Your task to perform on an android device: open app "YouTube Kids" Image 0: 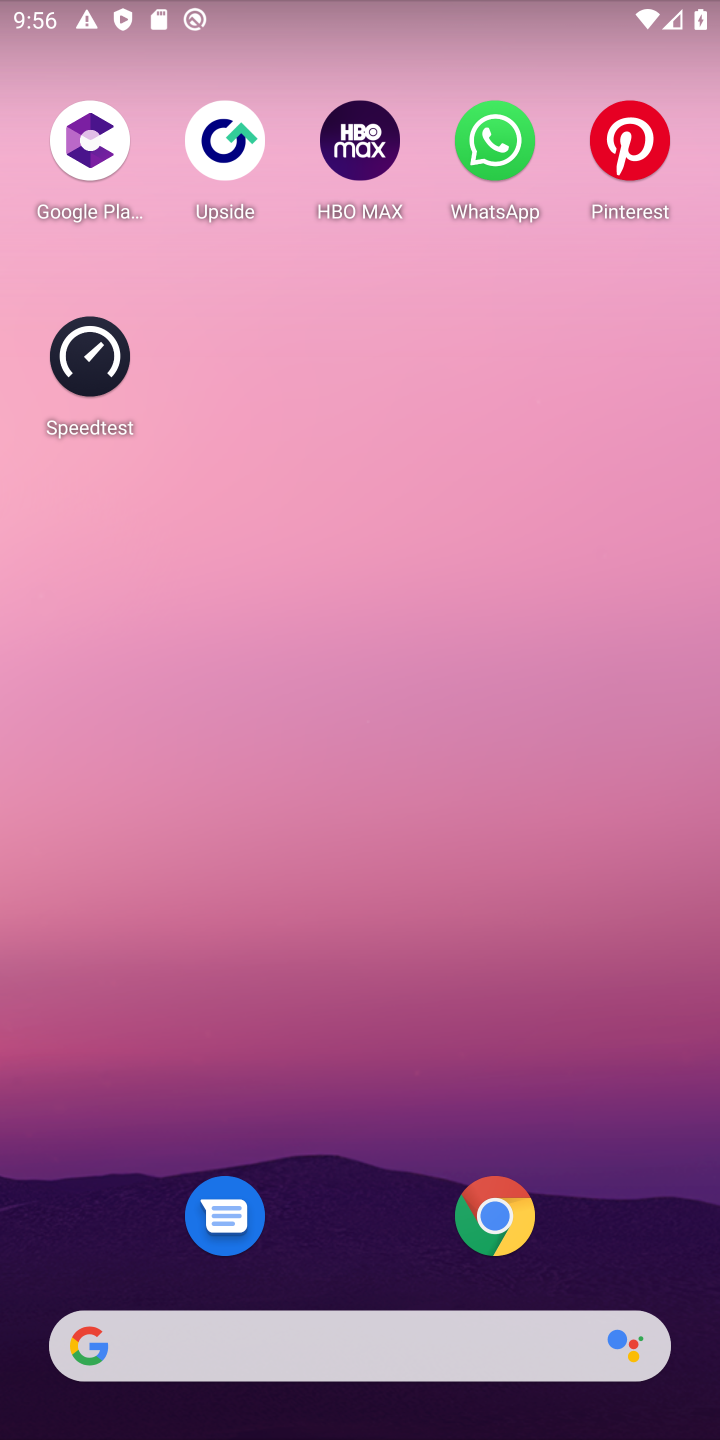
Step 0: press home button
Your task to perform on an android device: open app "YouTube Kids" Image 1: 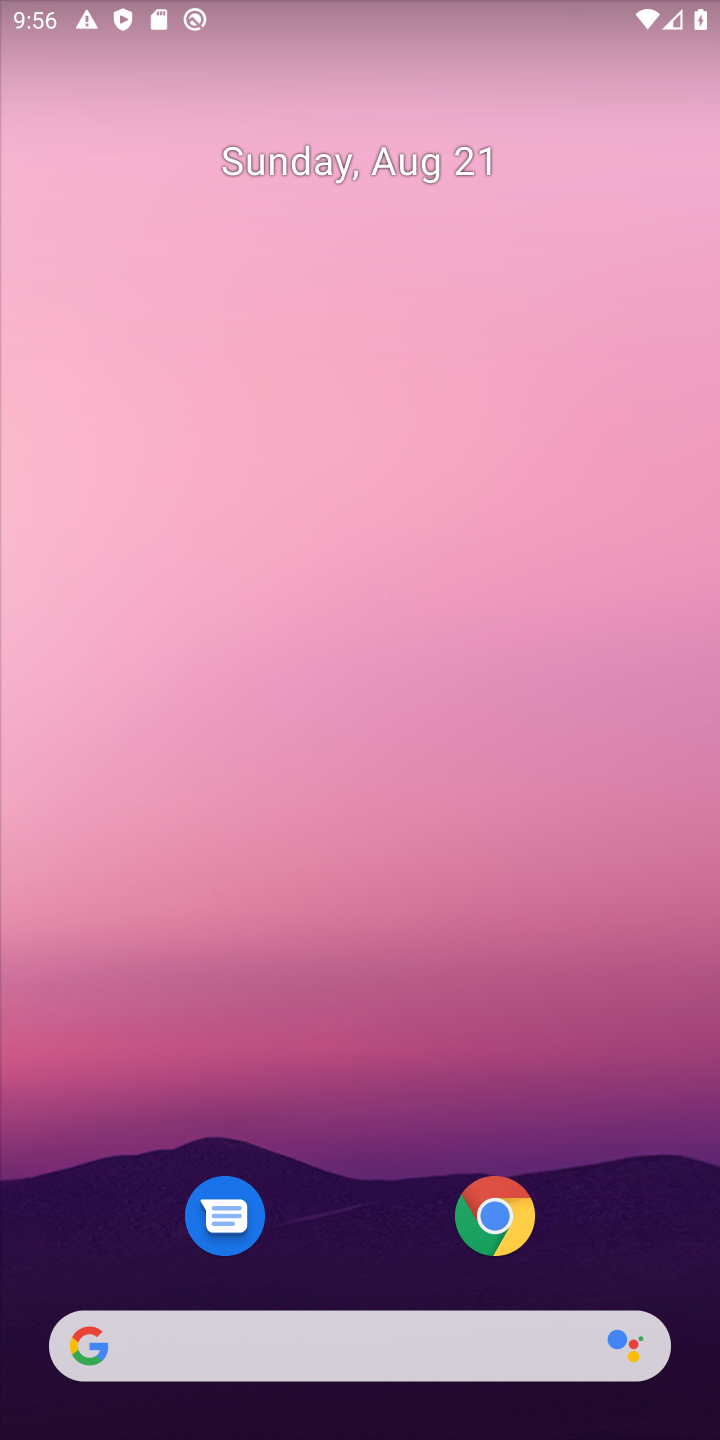
Step 1: drag from (294, 1178) to (326, 208)
Your task to perform on an android device: open app "YouTube Kids" Image 2: 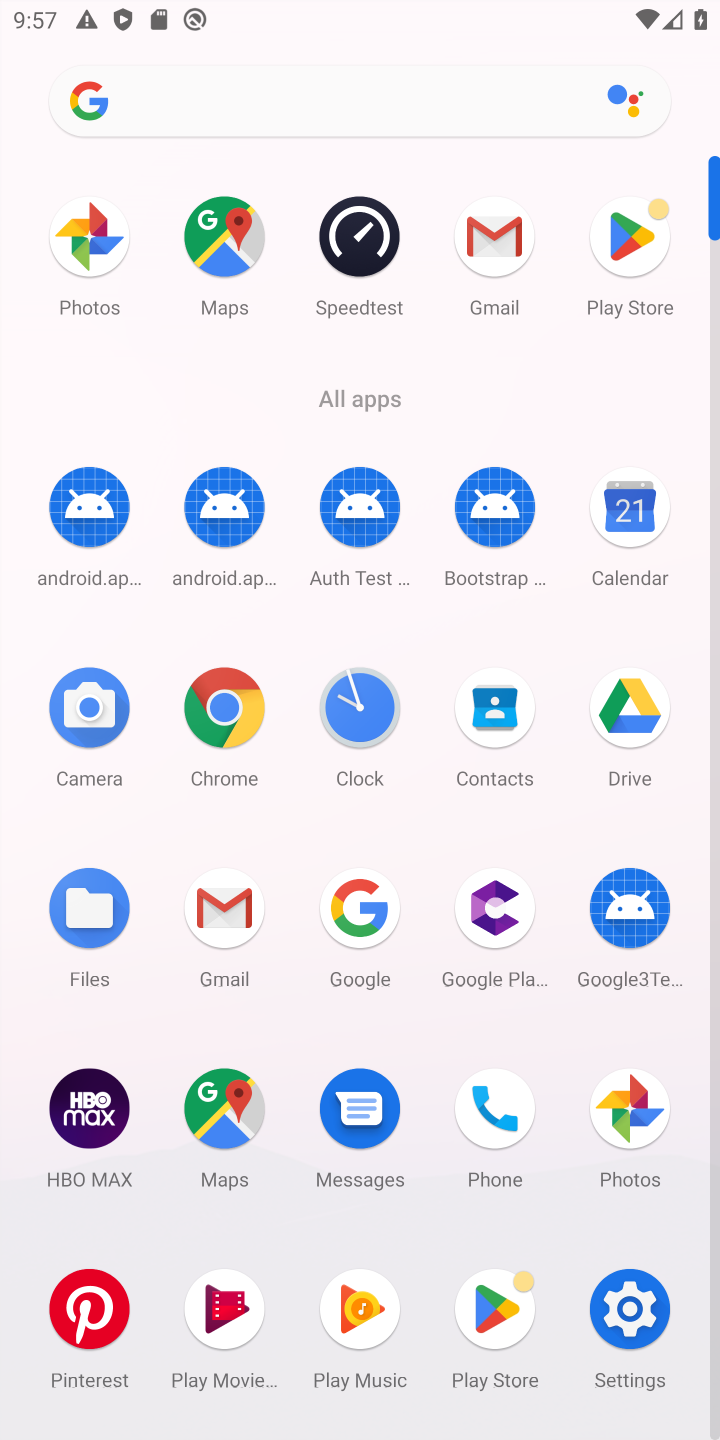
Step 2: click (628, 246)
Your task to perform on an android device: open app "YouTube Kids" Image 3: 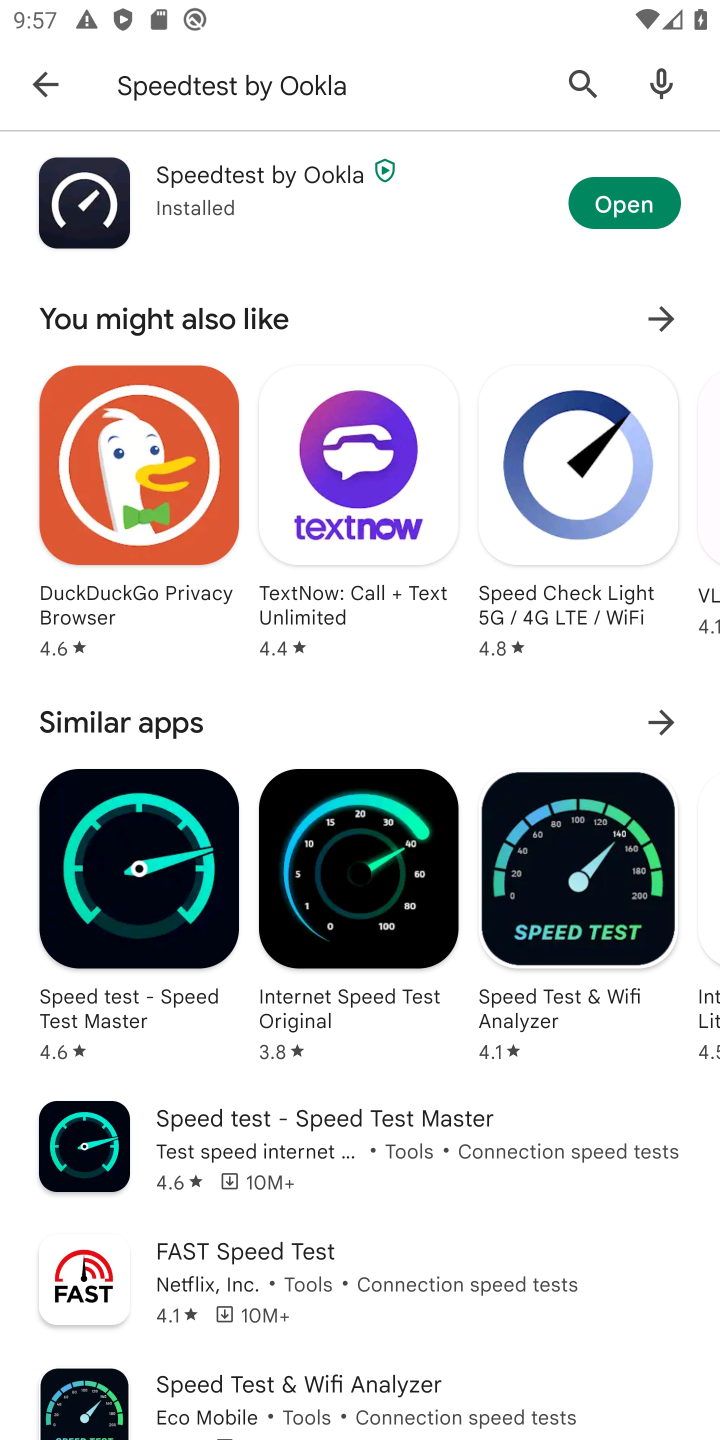
Step 3: press back button
Your task to perform on an android device: open app "YouTube Kids" Image 4: 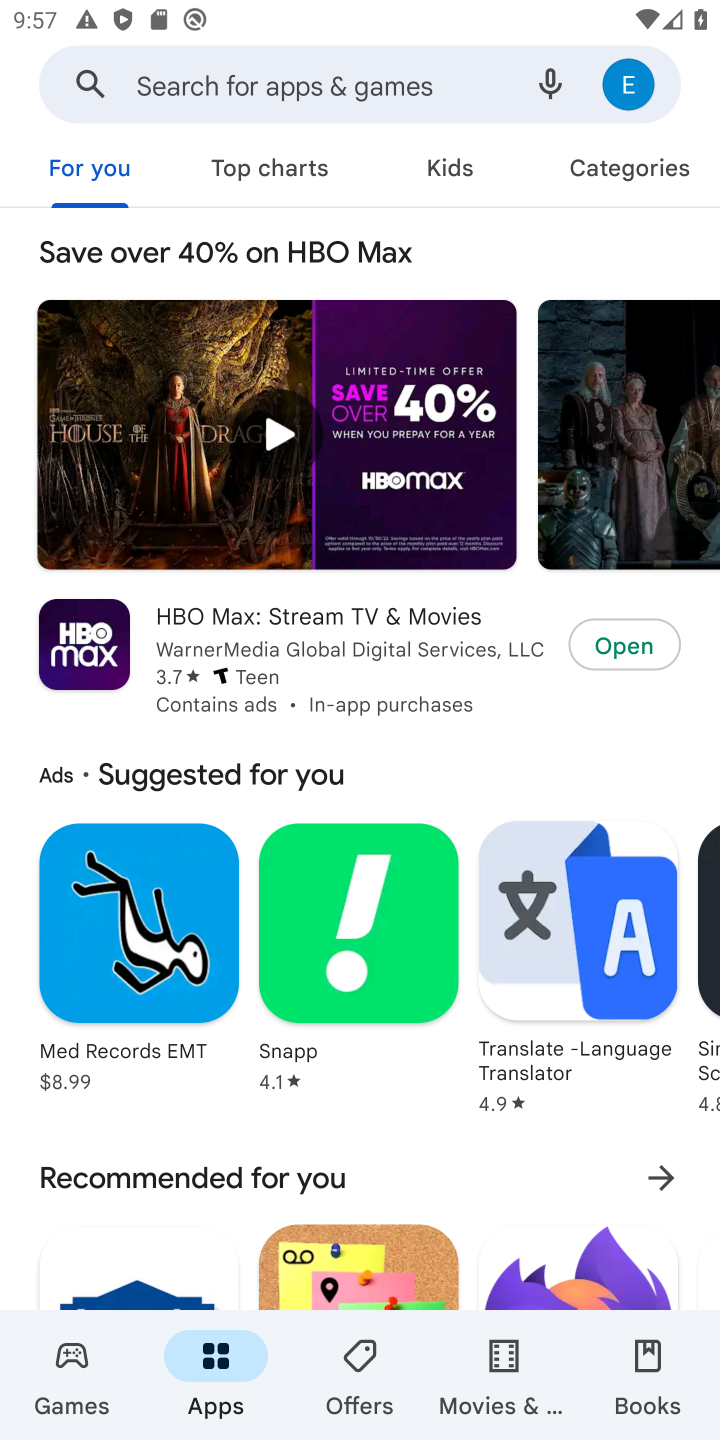
Step 4: click (395, 80)
Your task to perform on an android device: open app "YouTube Kids" Image 5: 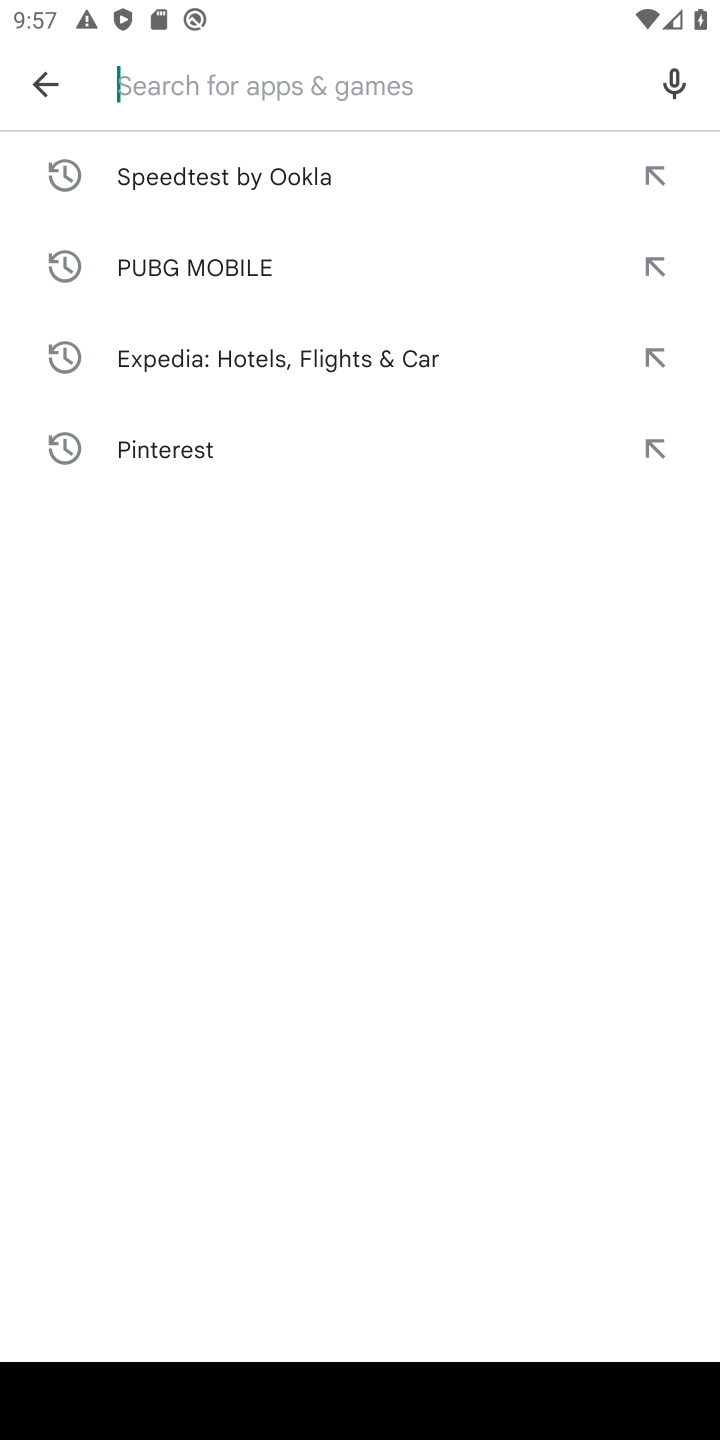
Step 5: type "YouTube Kids"
Your task to perform on an android device: open app "YouTube Kids" Image 6: 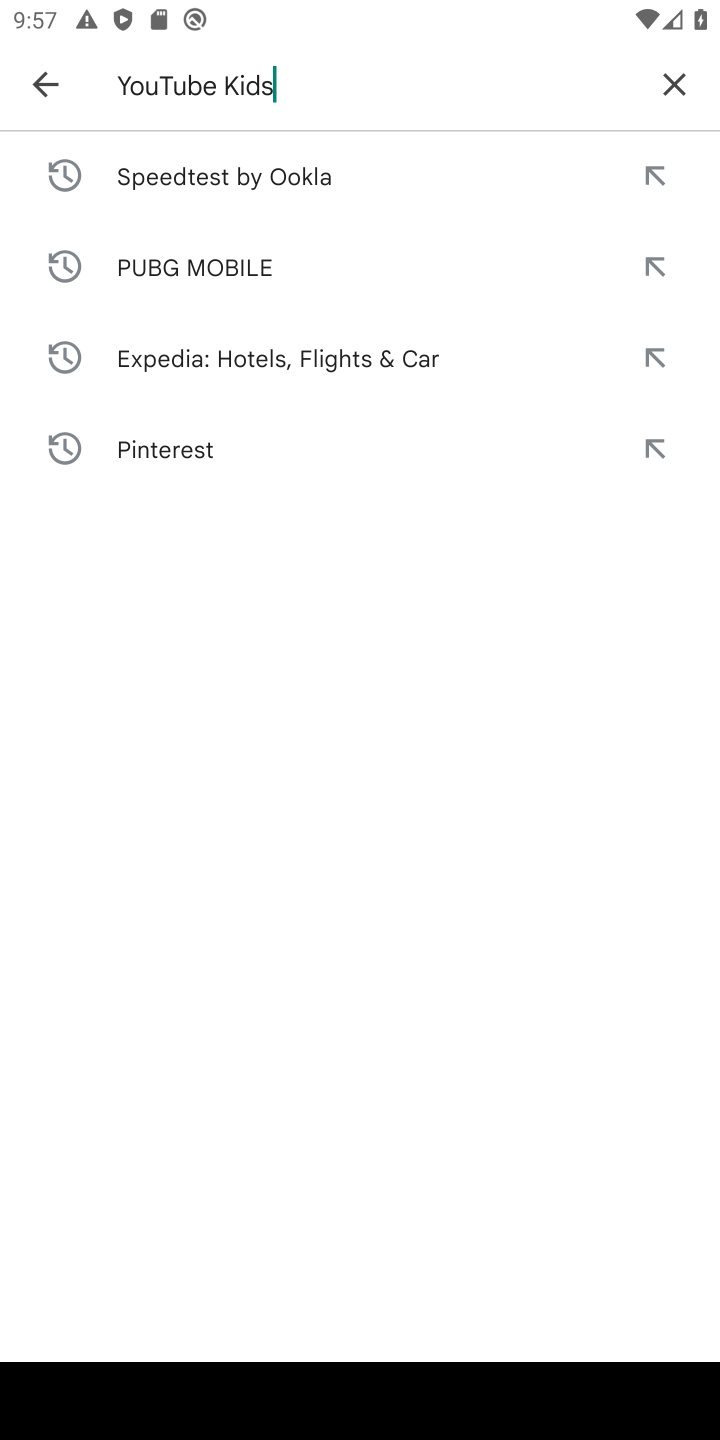
Step 6: press enter
Your task to perform on an android device: open app "YouTube Kids" Image 7: 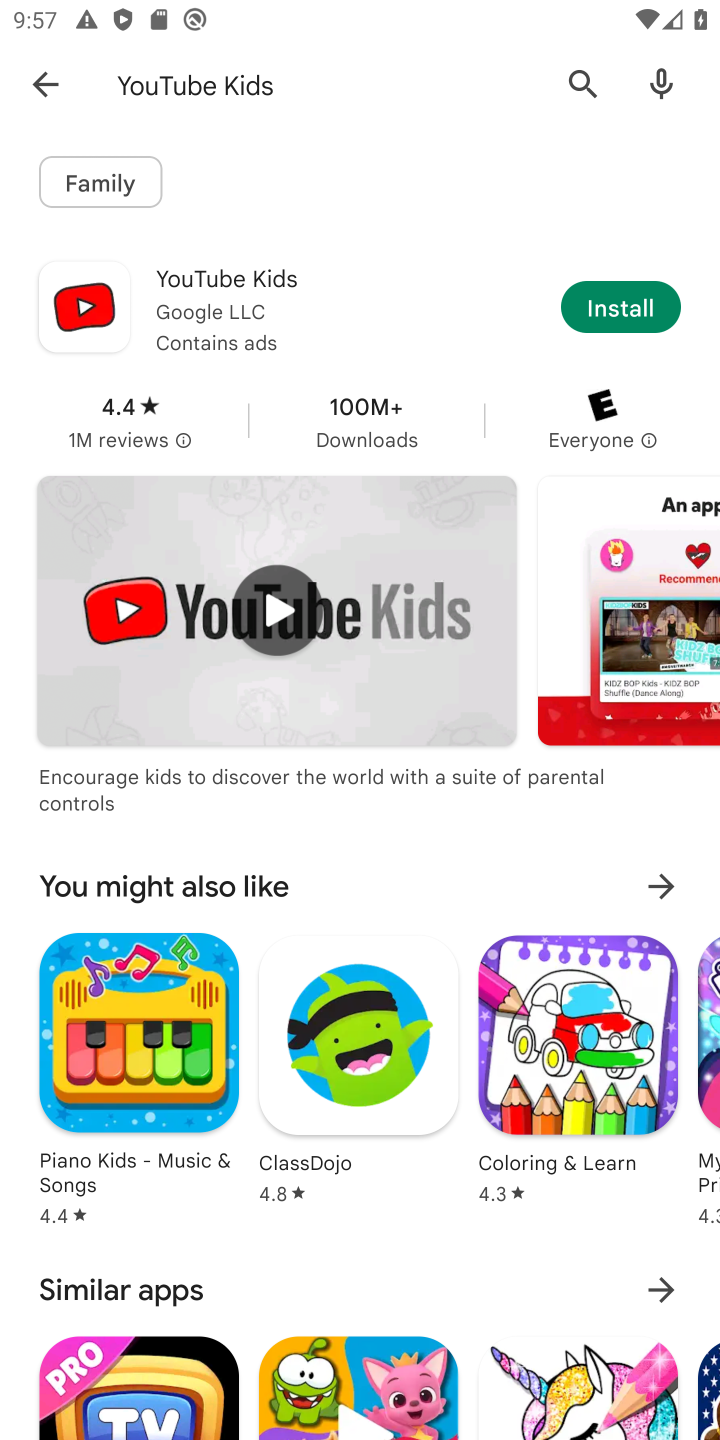
Step 7: task complete